Your task to perform on an android device: Open battery settings Image 0: 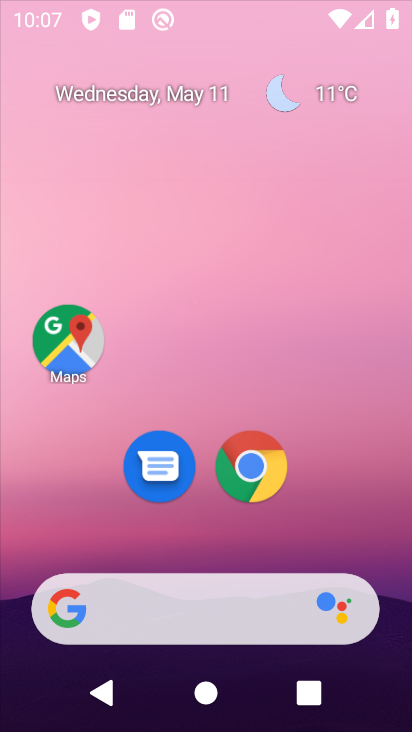
Step 0: drag from (278, 74) to (321, 182)
Your task to perform on an android device: Open battery settings Image 1: 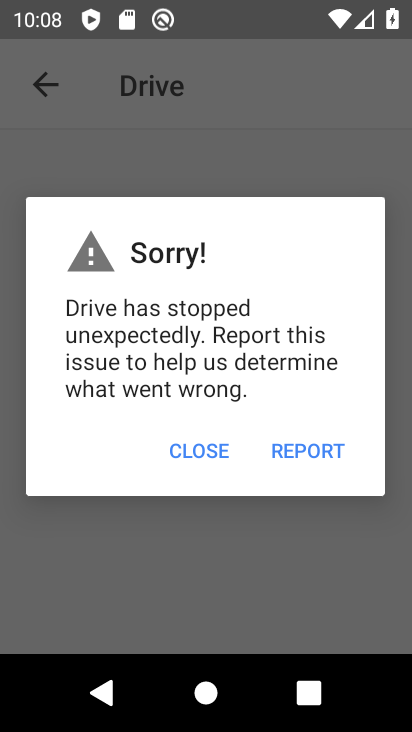
Step 1: press home button
Your task to perform on an android device: Open battery settings Image 2: 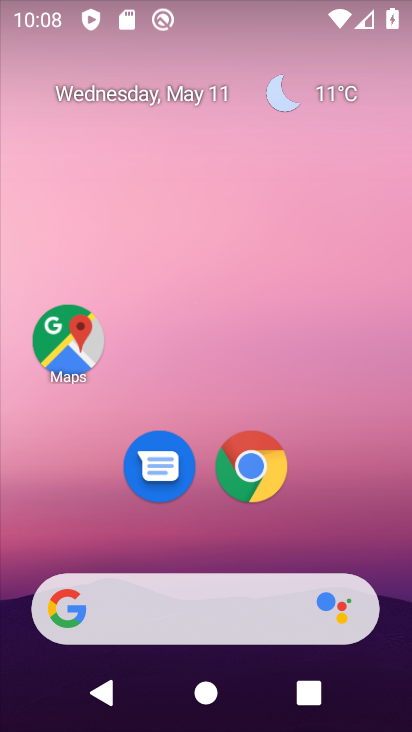
Step 2: drag from (369, 494) to (375, 114)
Your task to perform on an android device: Open battery settings Image 3: 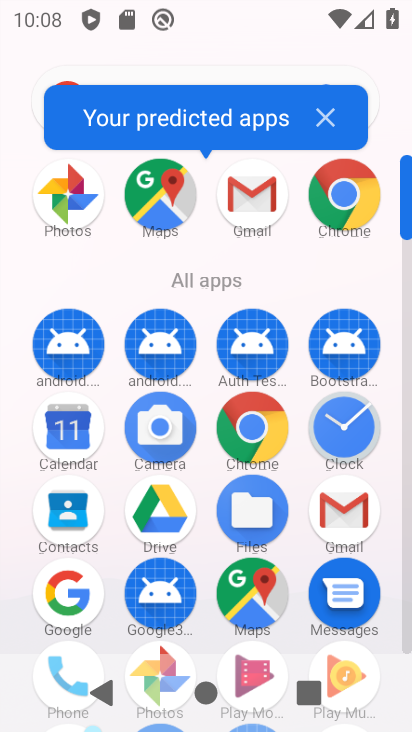
Step 3: drag from (194, 293) to (198, 104)
Your task to perform on an android device: Open battery settings Image 4: 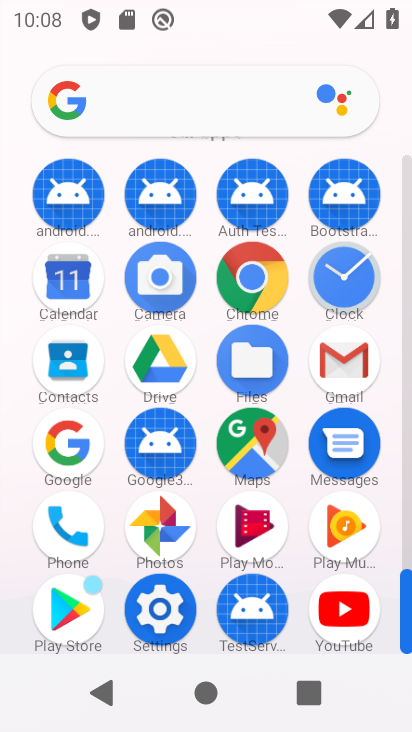
Step 4: click (162, 596)
Your task to perform on an android device: Open battery settings Image 5: 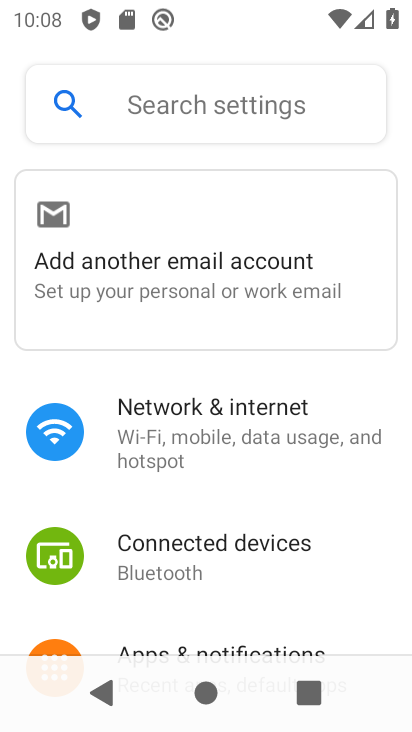
Step 5: drag from (236, 591) to (209, 269)
Your task to perform on an android device: Open battery settings Image 6: 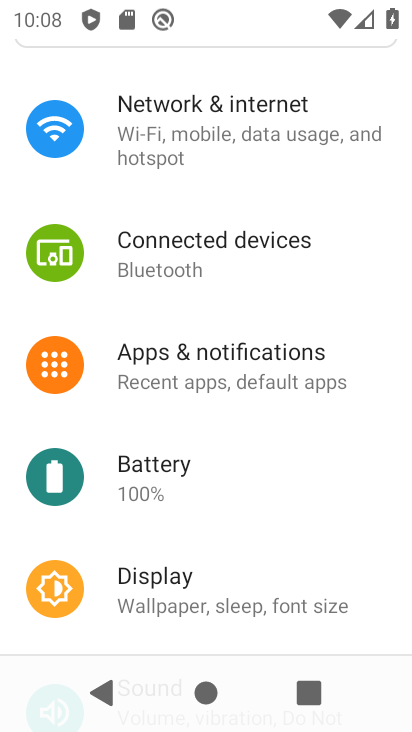
Step 6: click (197, 493)
Your task to perform on an android device: Open battery settings Image 7: 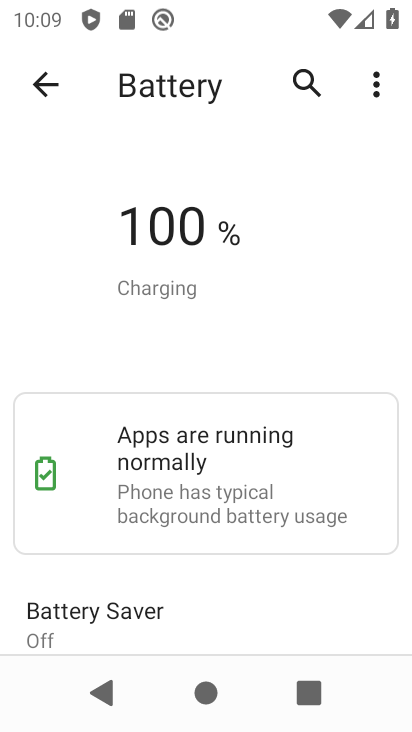
Step 7: task complete